Your task to perform on an android device: turn on javascript in the chrome app Image 0: 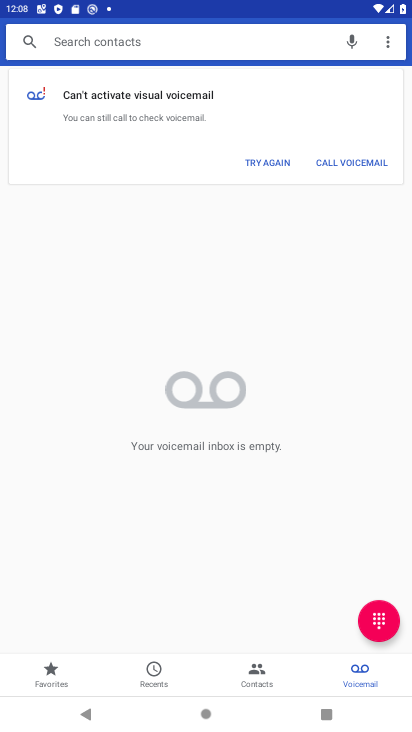
Step 0: press home button
Your task to perform on an android device: turn on javascript in the chrome app Image 1: 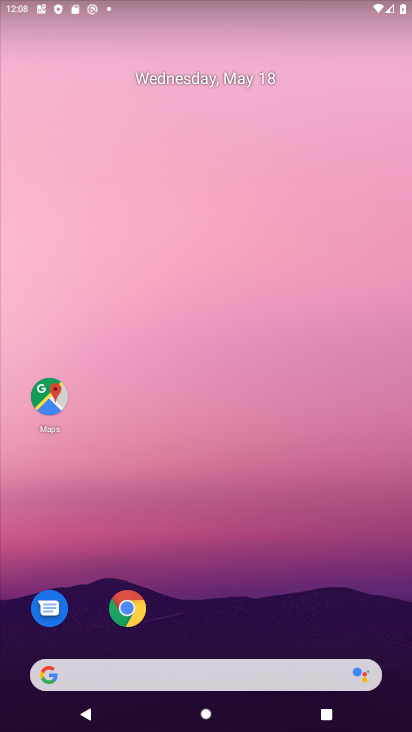
Step 1: click (142, 602)
Your task to perform on an android device: turn on javascript in the chrome app Image 2: 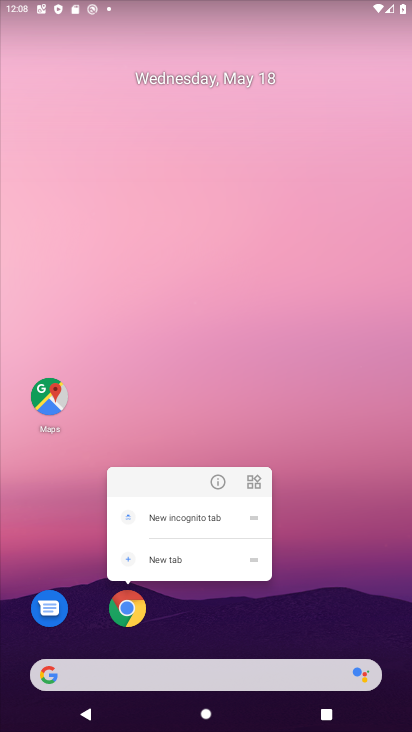
Step 2: click (111, 602)
Your task to perform on an android device: turn on javascript in the chrome app Image 3: 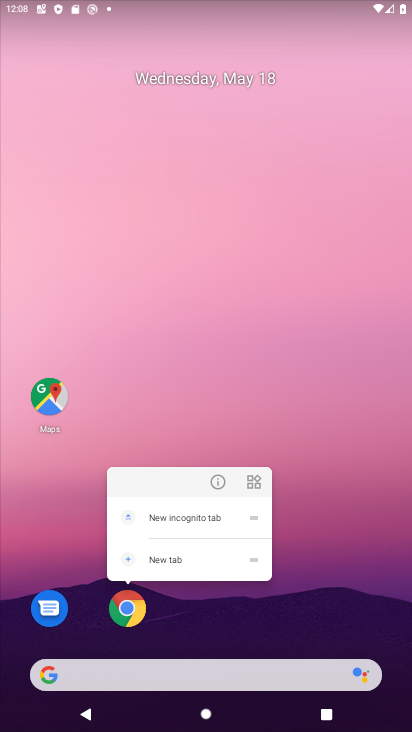
Step 3: click (129, 616)
Your task to perform on an android device: turn on javascript in the chrome app Image 4: 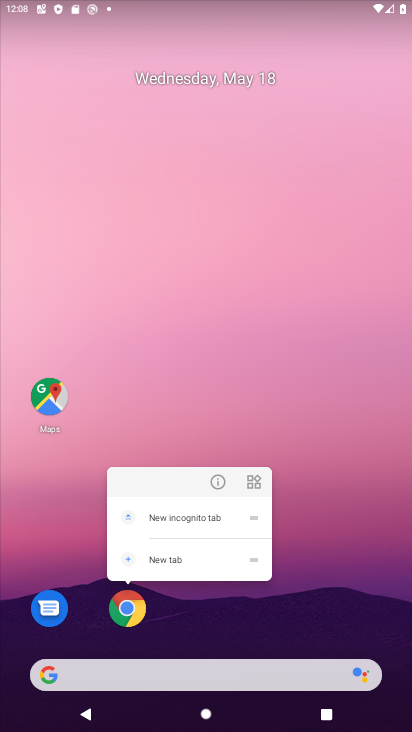
Step 4: click (129, 616)
Your task to perform on an android device: turn on javascript in the chrome app Image 5: 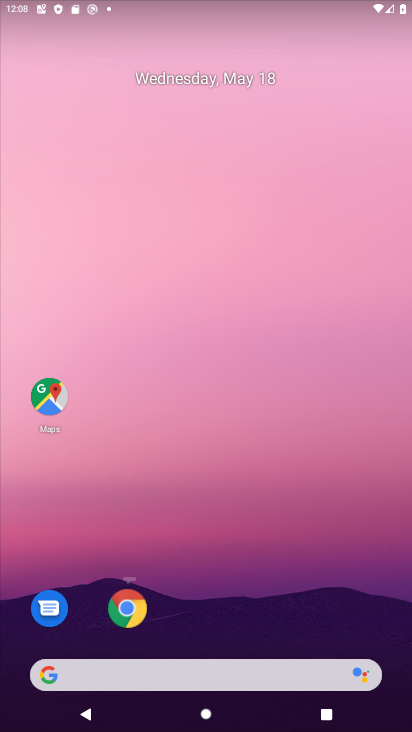
Step 5: click (129, 616)
Your task to perform on an android device: turn on javascript in the chrome app Image 6: 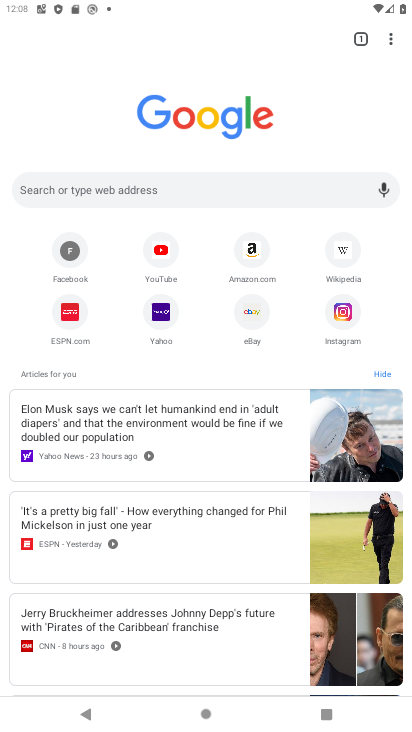
Step 6: click (392, 35)
Your task to perform on an android device: turn on javascript in the chrome app Image 7: 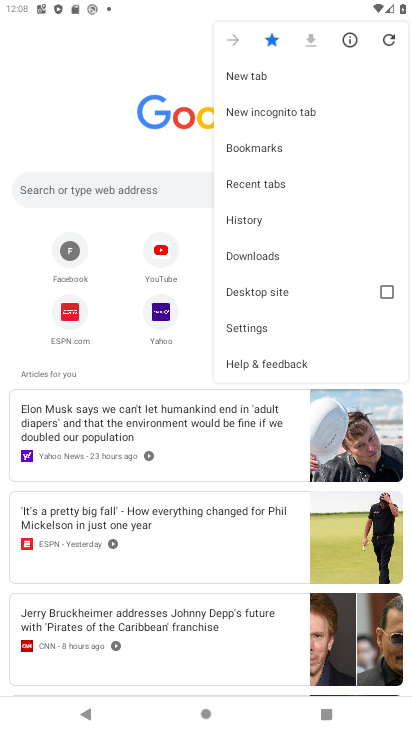
Step 7: click (275, 330)
Your task to perform on an android device: turn on javascript in the chrome app Image 8: 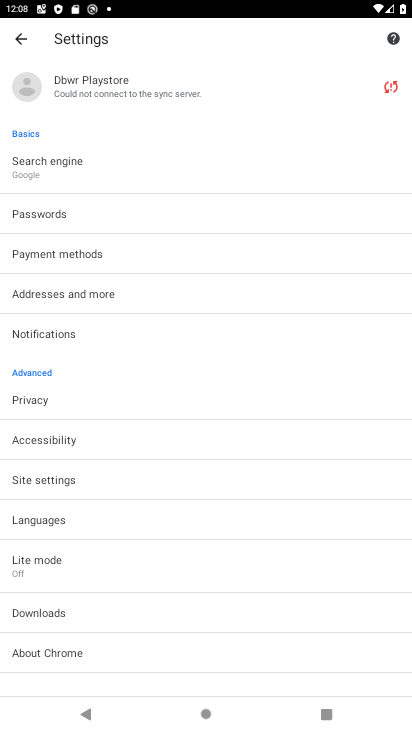
Step 8: click (69, 479)
Your task to perform on an android device: turn on javascript in the chrome app Image 9: 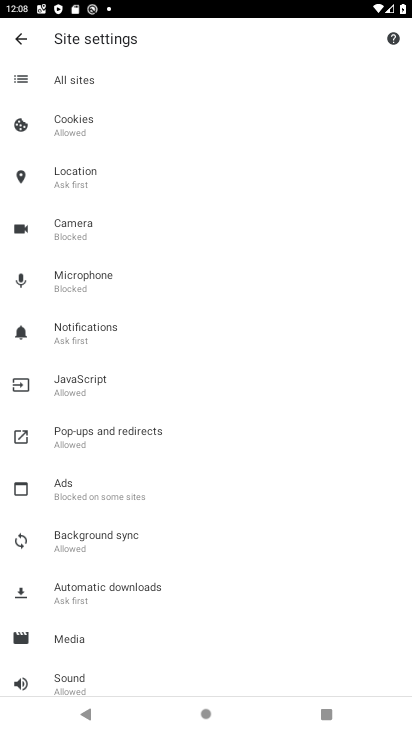
Step 9: click (103, 383)
Your task to perform on an android device: turn on javascript in the chrome app Image 10: 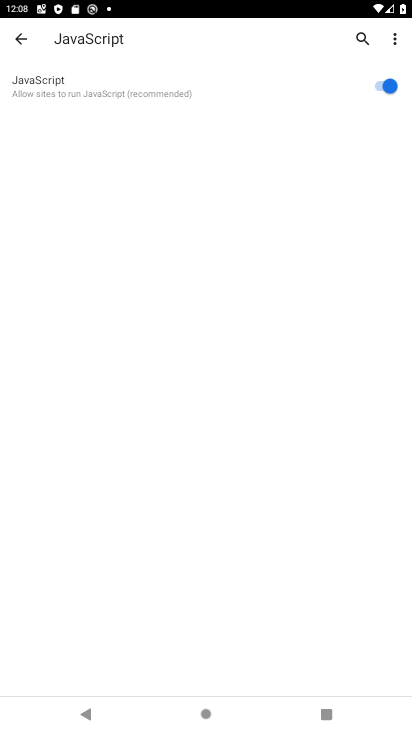
Step 10: task complete